Your task to perform on an android device: delete browsing data in the chrome app Image 0: 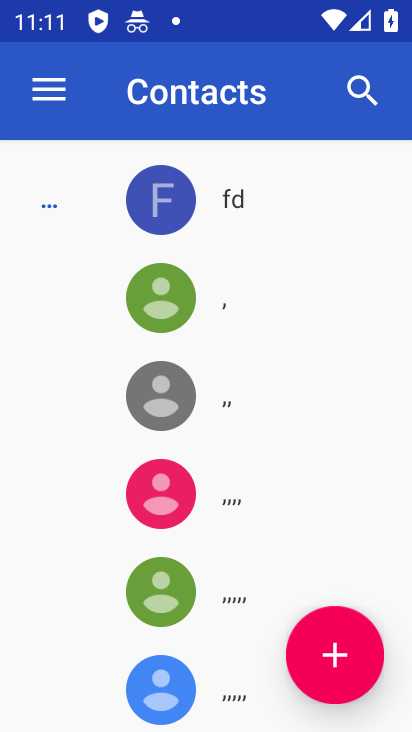
Step 0: press home button
Your task to perform on an android device: delete browsing data in the chrome app Image 1: 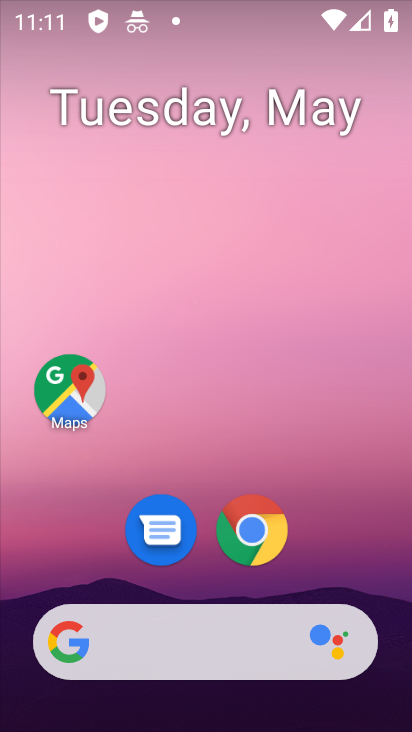
Step 1: click (257, 526)
Your task to perform on an android device: delete browsing data in the chrome app Image 2: 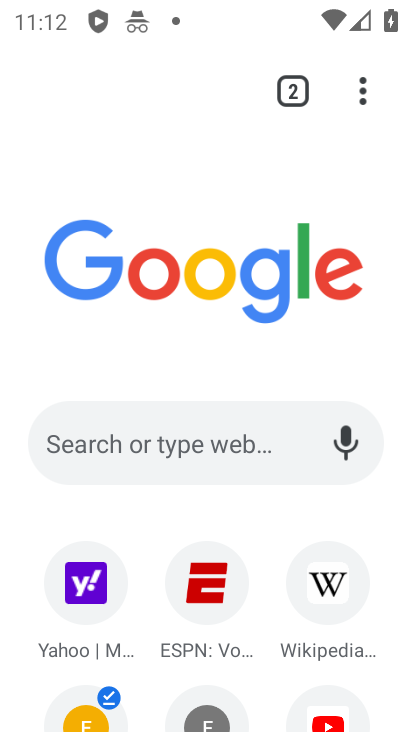
Step 2: drag from (366, 80) to (97, 314)
Your task to perform on an android device: delete browsing data in the chrome app Image 3: 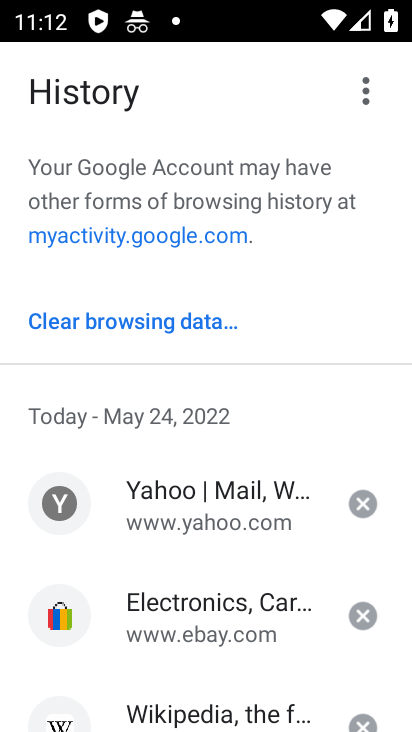
Step 3: click (136, 327)
Your task to perform on an android device: delete browsing data in the chrome app Image 4: 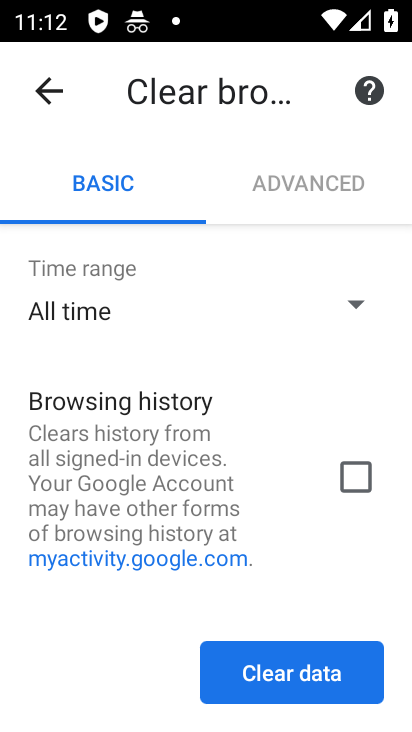
Step 4: click (344, 485)
Your task to perform on an android device: delete browsing data in the chrome app Image 5: 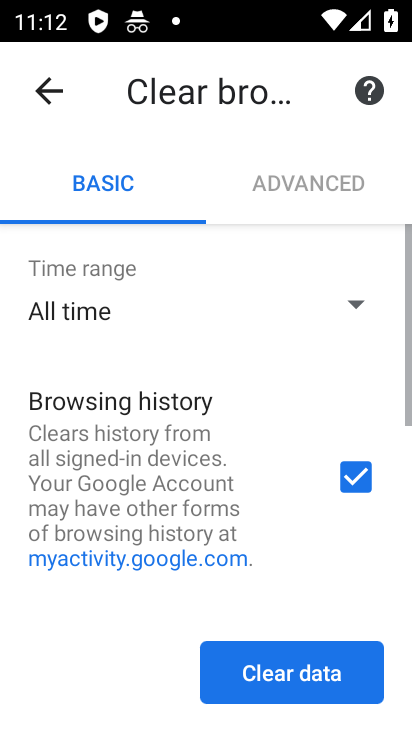
Step 5: drag from (270, 531) to (318, 216)
Your task to perform on an android device: delete browsing data in the chrome app Image 6: 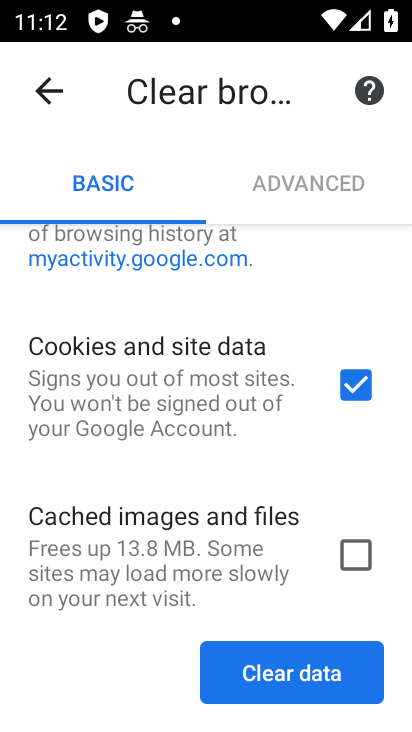
Step 6: drag from (267, 526) to (315, 205)
Your task to perform on an android device: delete browsing data in the chrome app Image 7: 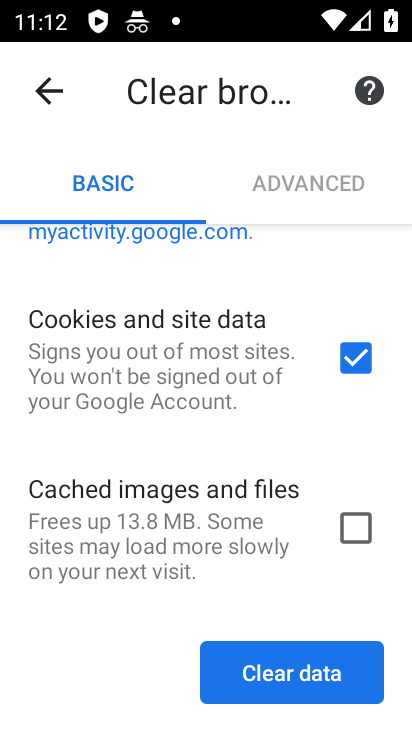
Step 7: click (341, 526)
Your task to perform on an android device: delete browsing data in the chrome app Image 8: 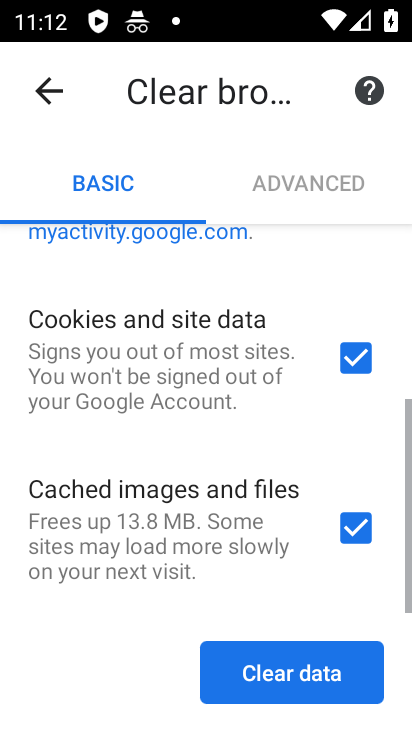
Step 8: click (290, 682)
Your task to perform on an android device: delete browsing data in the chrome app Image 9: 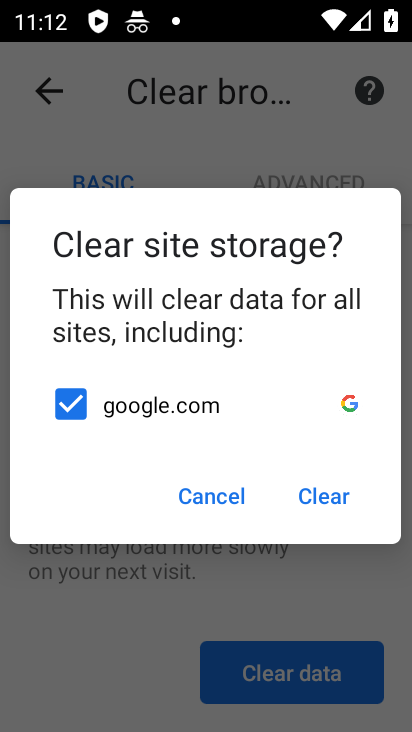
Step 9: click (335, 499)
Your task to perform on an android device: delete browsing data in the chrome app Image 10: 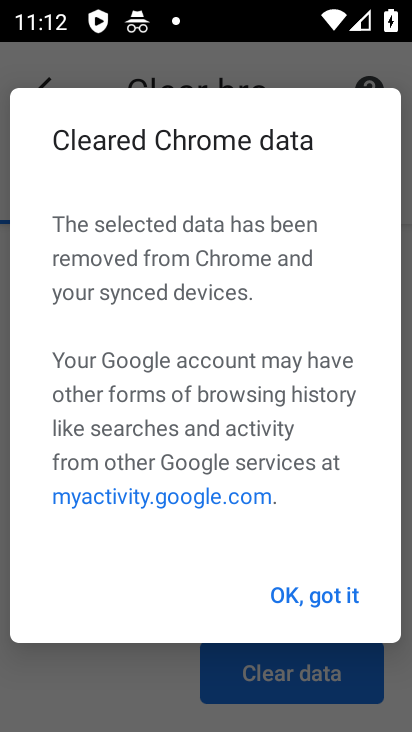
Step 10: task complete